Your task to perform on an android device: turn on translation in the chrome app Image 0: 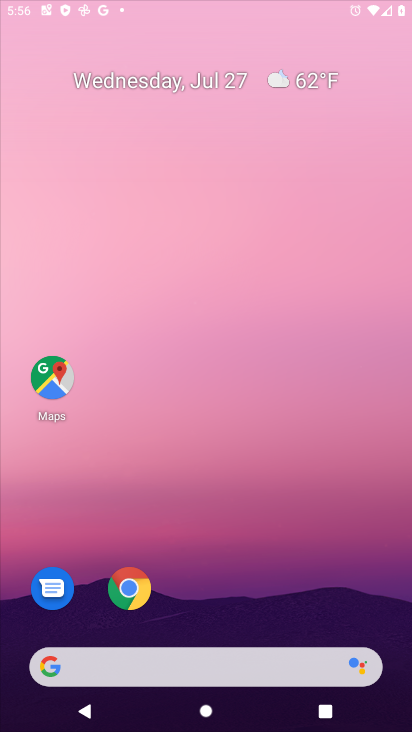
Step 0: click (278, 40)
Your task to perform on an android device: turn on translation in the chrome app Image 1: 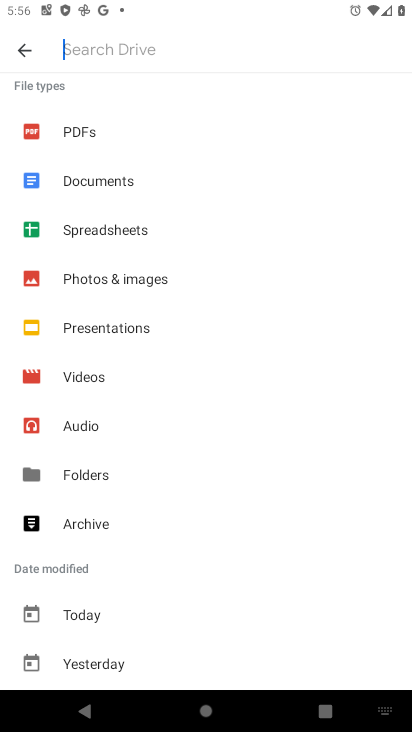
Step 1: press home button
Your task to perform on an android device: turn on translation in the chrome app Image 2: 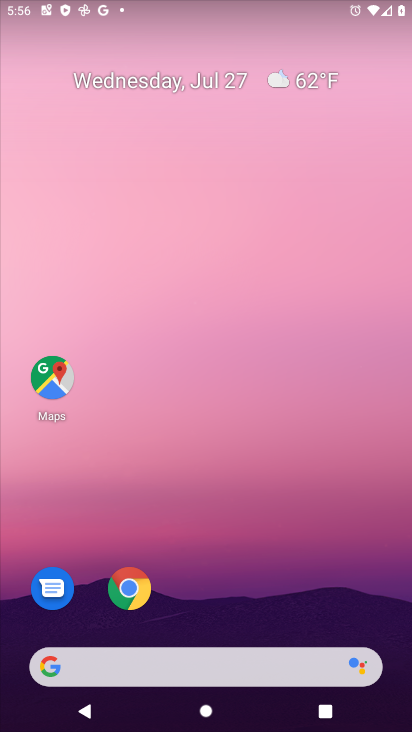
Step 2: click (121, 583)
Your task to perform on an android device: turn on translation in the chrome app Image 3: 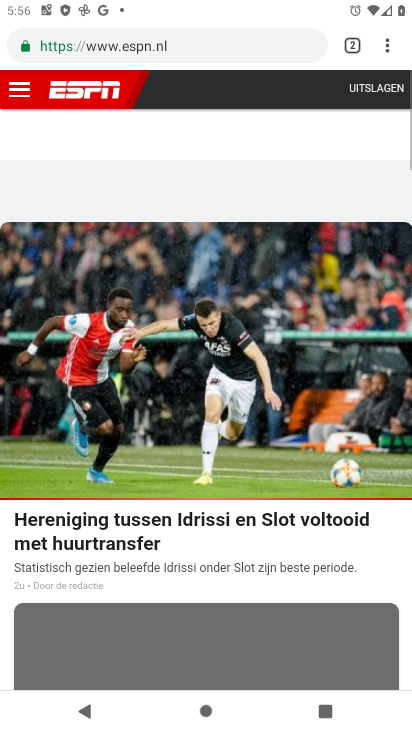
Step 3: click (385, 47)
Your task to perform on an android device: turn on translation in the chrome app Image 4: 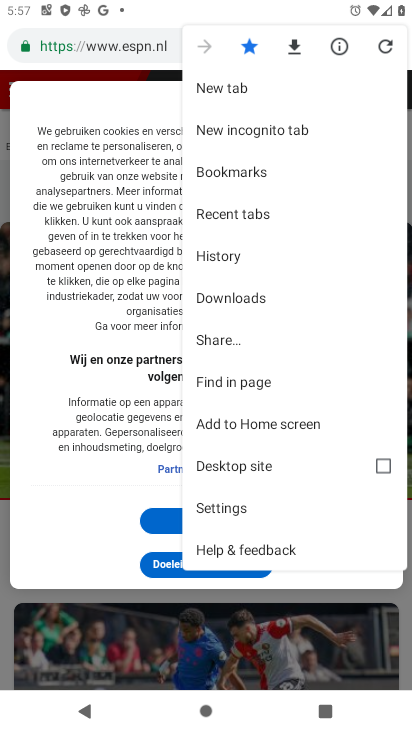
Step 4: click (233, 500)
Your task to perform on an android device: turn on translation in the chrome app Image 5: 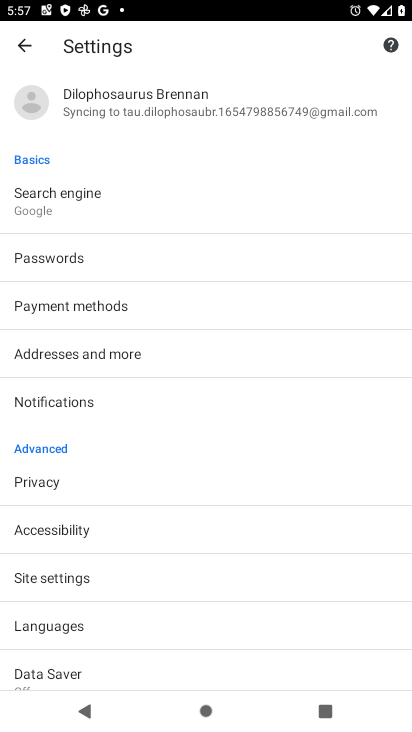
Step 5: click (68, 630)
Your task to perform on an android device: turn on translation in the chrome app Image 6: 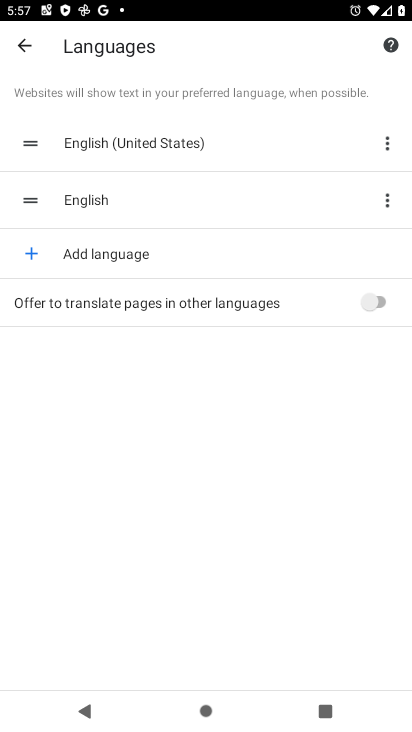
Step 6: click (381, 299)
Your task to perform on an android device: turn on translation in the chrome app Image 7: 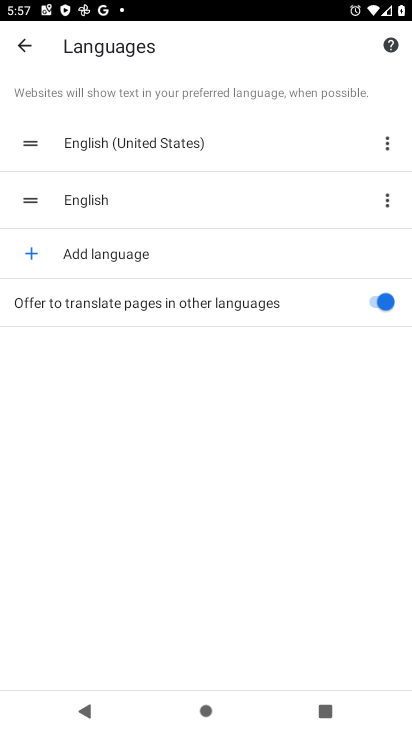
Step 7: task complete